Your task to perform on an android device: What's the weather going to be tomorrow? Image 0: 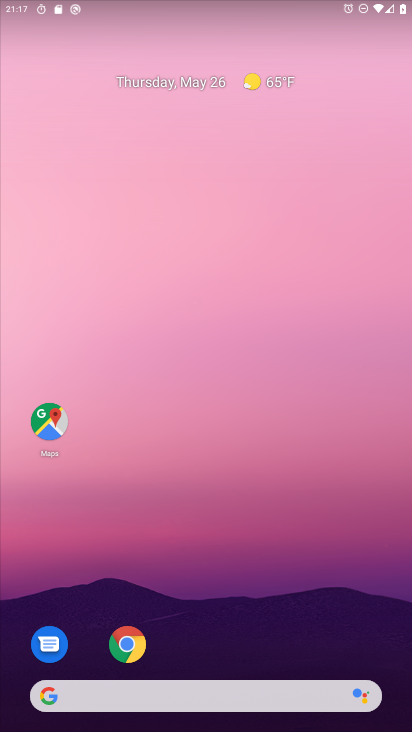
Step 0: drag from (181, 672) to (72, 317)
Your task to perform on an android device: What's the weather going to be tomorrow? Image 1: 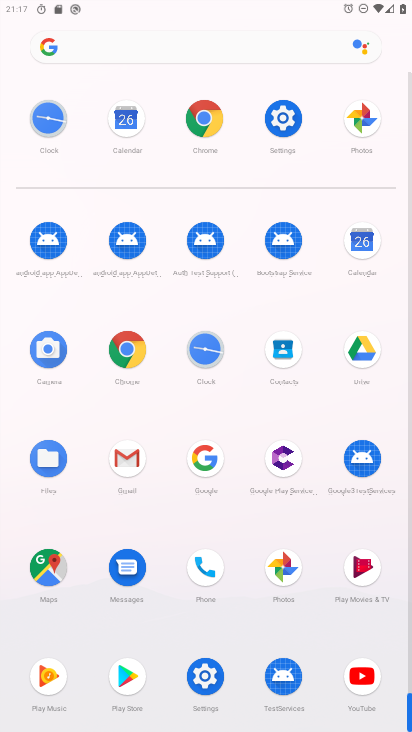
Step 1: click (129, 47)
Your task to perform on an android device: What's the weather going to be tomorrow? Image 2: 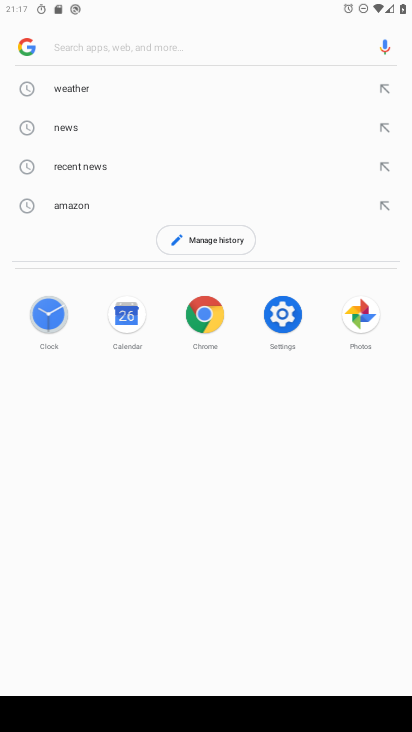
Step 2: type "weather going to be tomorrow?"
Your task to perform on an android device: What's the weather going to be tomorrow? Image 3: 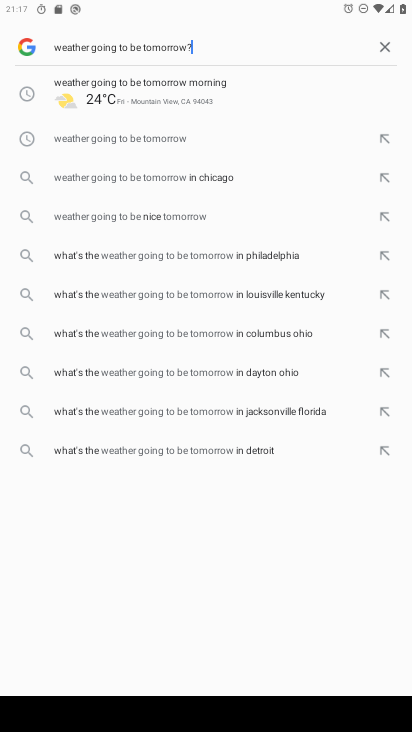
Step 3: type ""
Your task to perform on an android device: What's the weather going to be tomorrow? Image 4: 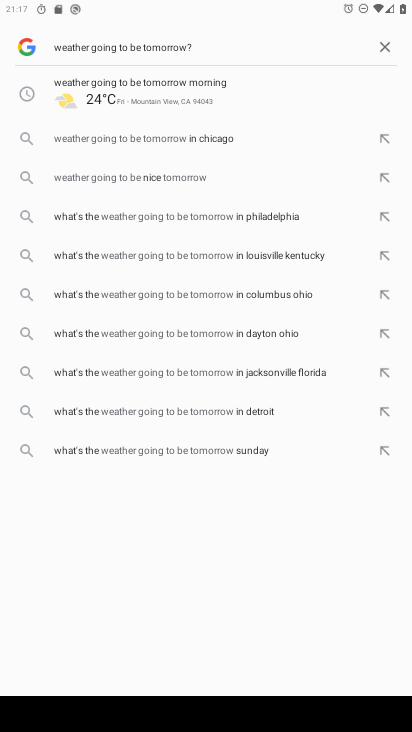
Step 4: click (131, 82)
Your task to perform on an android device: What's the weather going to be tomorrow? Image 5: 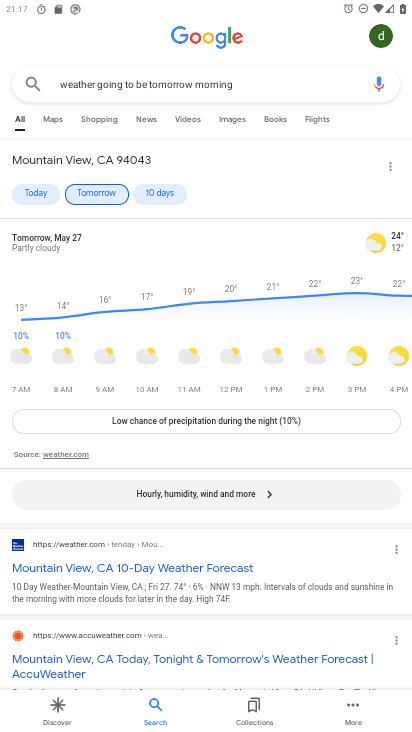
Step 5: task complete